Your task to perform on an android device: When is my next meeting? Image 0: 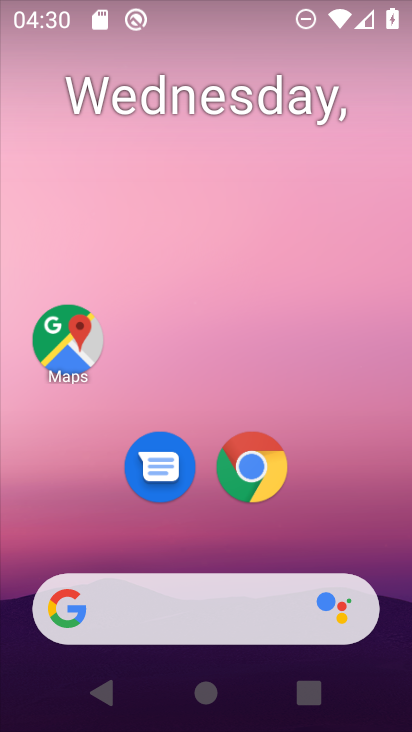
Step 0: drag from (391, 606) to (312, 90)
Your task to perform on an android device: When is my next meeting? Image 1: 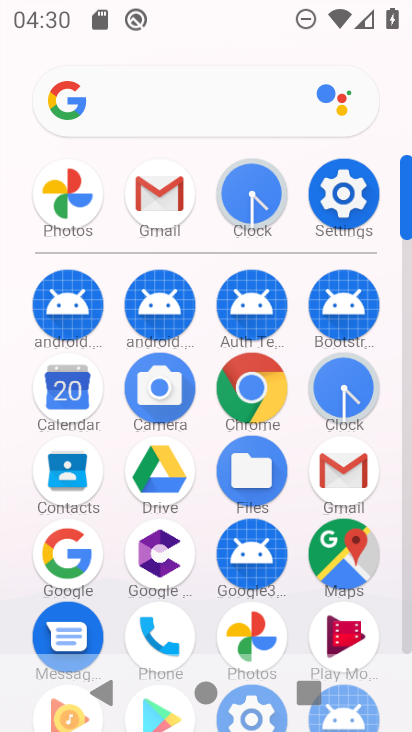
Step 1: click (64, 392)
Your task to perform on an android device: When is my next meeting? Image 2: 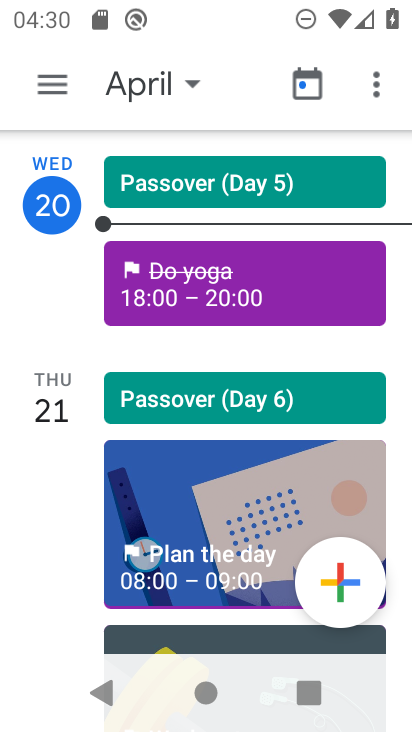
Step 2: click (62, 97)
Your task to perform on an android device: When is my next meeting? Image 3: 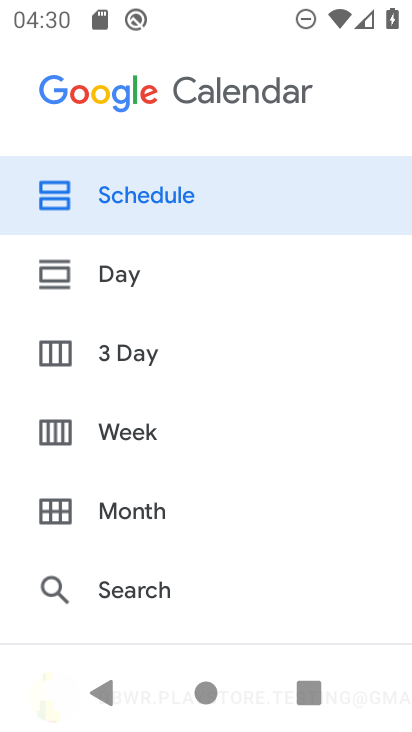
Step 3: drag from (314, 567) to (239, 561)
Your task to perform on an android device: When is my next meeting? Image 4: 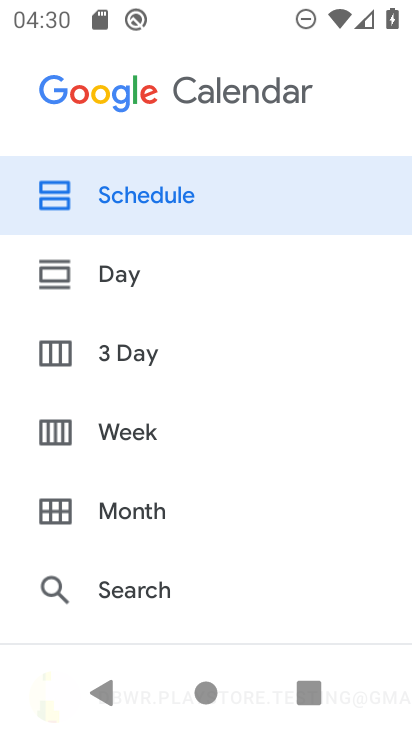
Step 4: drag from (208, 574) to (252, 141)
Your task to perform on an android device: When is my next meeting? Image 5: 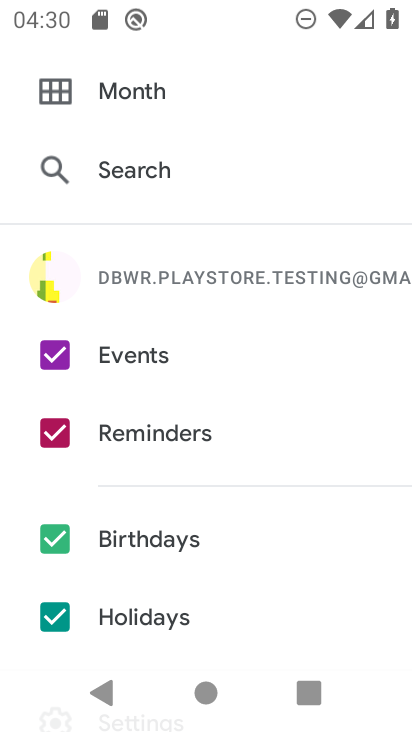
Step 5: click (66, 539)
Your task to perform on an android device: When is my next meeting? Image 6: 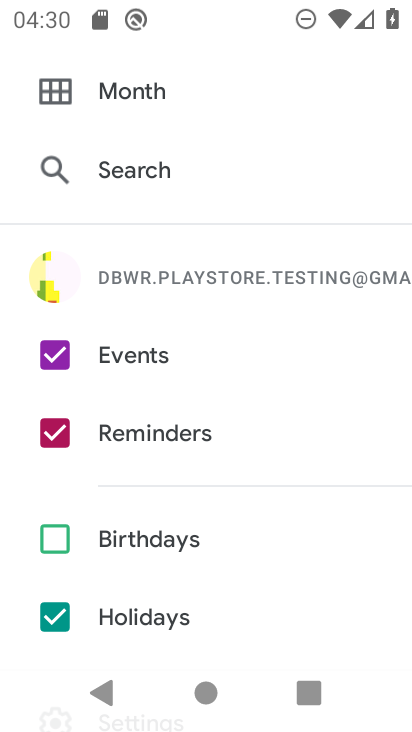
Step 6: click (48, 617)
Your task to perform on an android device: When is my next meeting? Image 7: 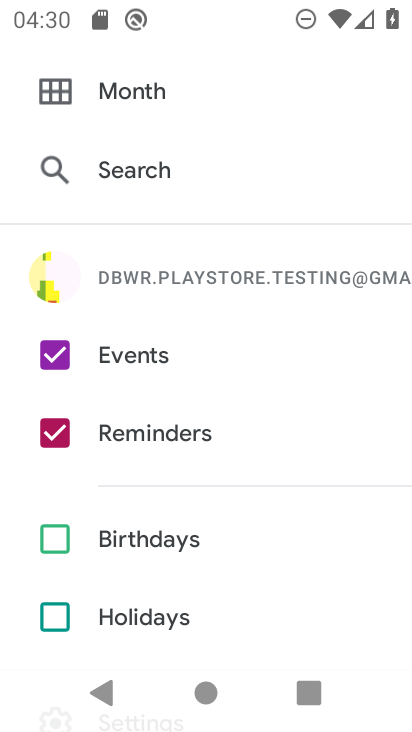
Step 7: drag from (313, 198) to (250, 551)
Your task to perform on an android device: When is my next meeting? Image 8: 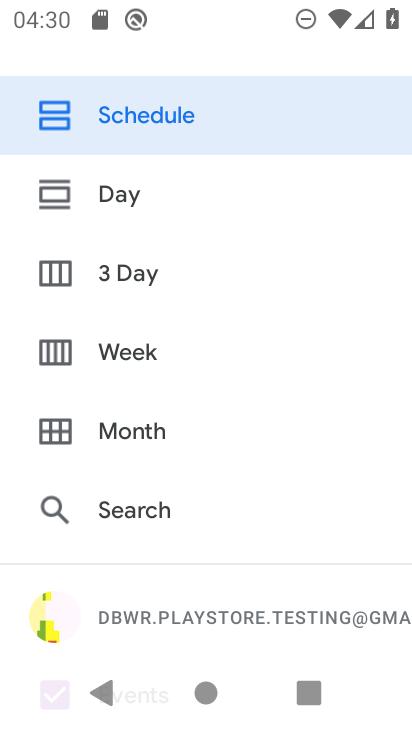
Step 8: click (124, 108)
Your task to perform on an android device: When is my next meeting? Image 9: 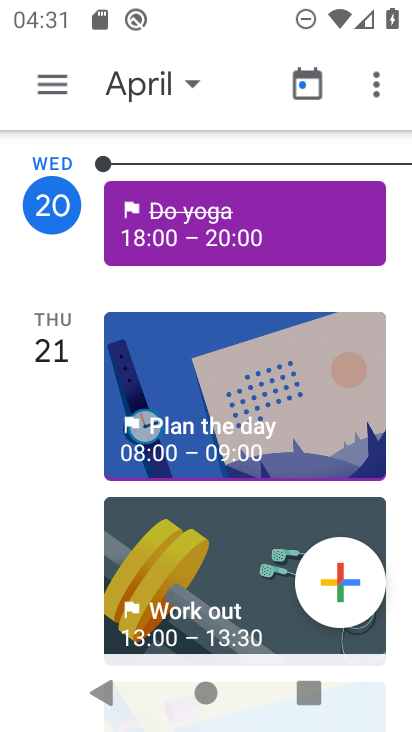
Step 9: task complete